Your task to perform on an android device: Go to notification settings Image 0: 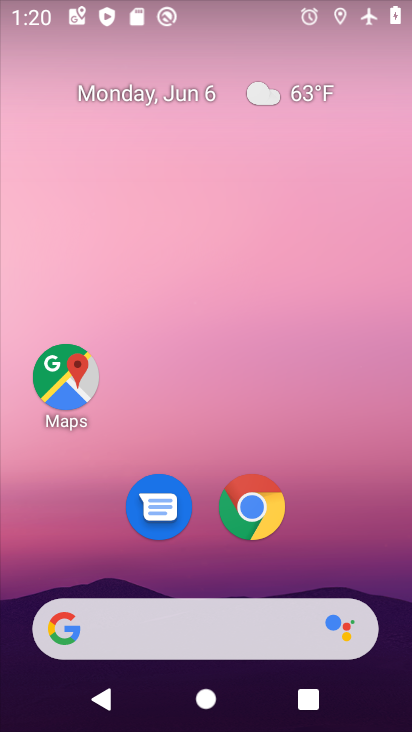
Step 0: drag from (327, 560) to (361, 76)
Your task to perform on an android device: Go to notification settings Image 1: 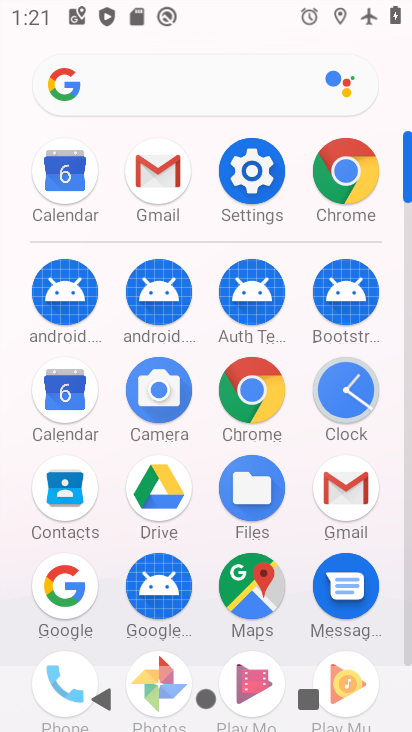
Step 1: click (258, 169)
Your task to perform on an android device: Go to notification settings Image 2: 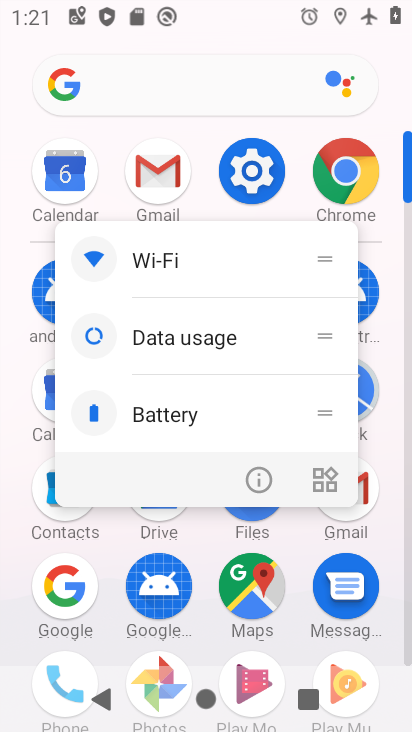
Step 2: click (258, 166)
Your task to perform on an android device: Go to notification settings Image 3: 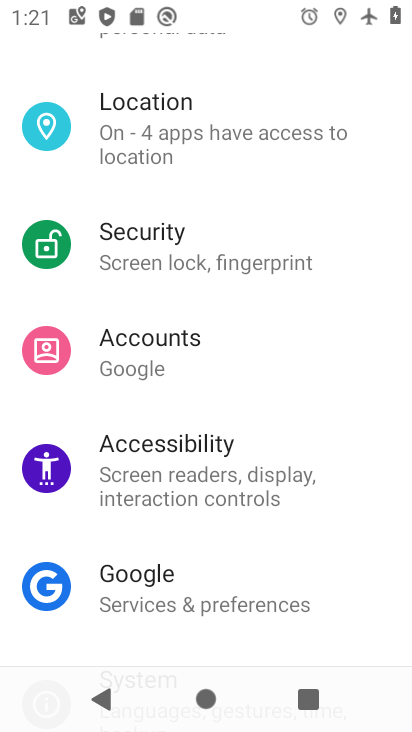
Step 3: drag from (256, 185) to (208, 667)
Your task to perform on an android device: Go to notification settings Image 4: 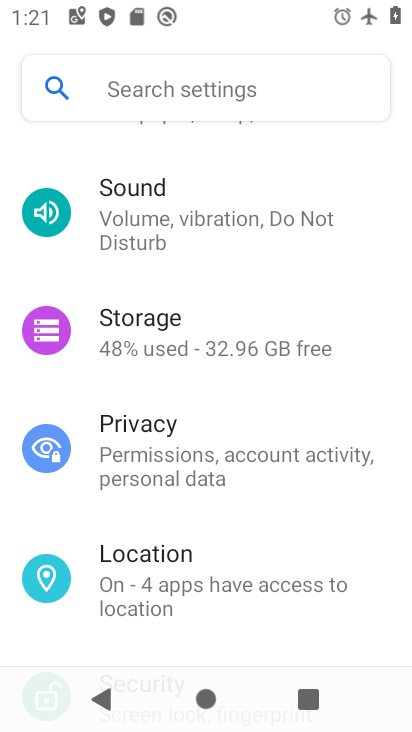
Step 4: drag from (237, 163) to (257, 588)
Your task to perform on an android device: Go to notification settings Image 5: 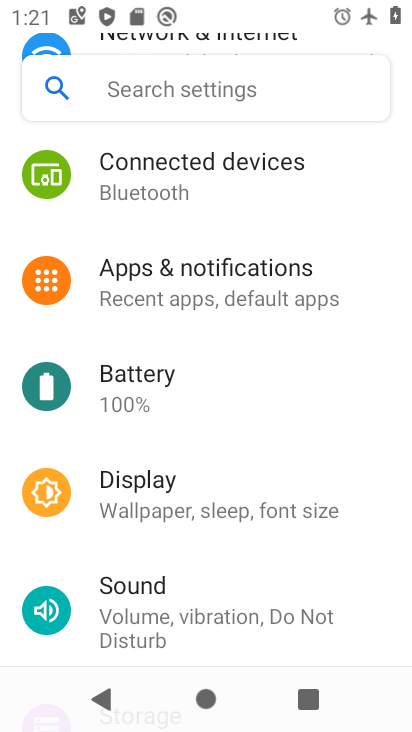
Step 5: click (261, 272)
Your task to perform on an android device: Go to notification settings Image 6: 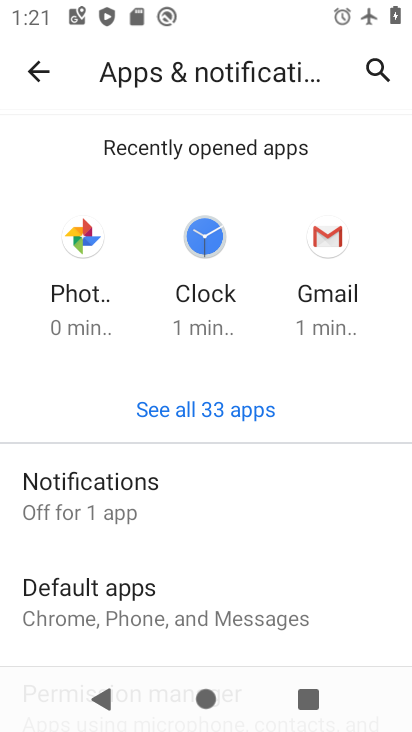
Step 6: click (161, 489)
Your task to perform on an android device: Go to notification settings Image 7: 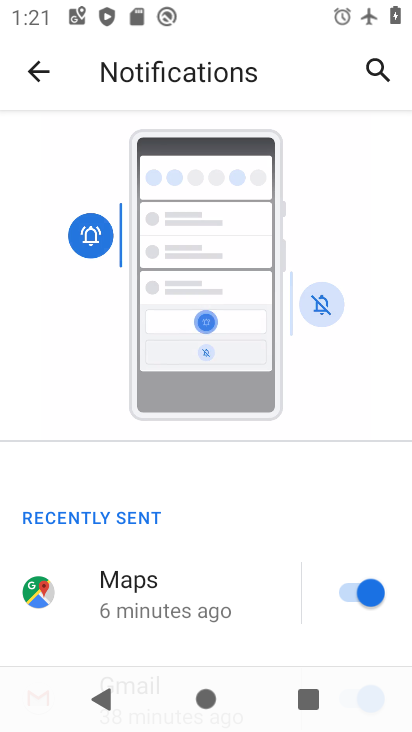
Step 7: task complete